Your task to perform on an android device: Clear the cart on ebay.com. Search for lenovo thinkpad on ebay.com, select the first entry, add it to the cart, then select checkout. Image 0: 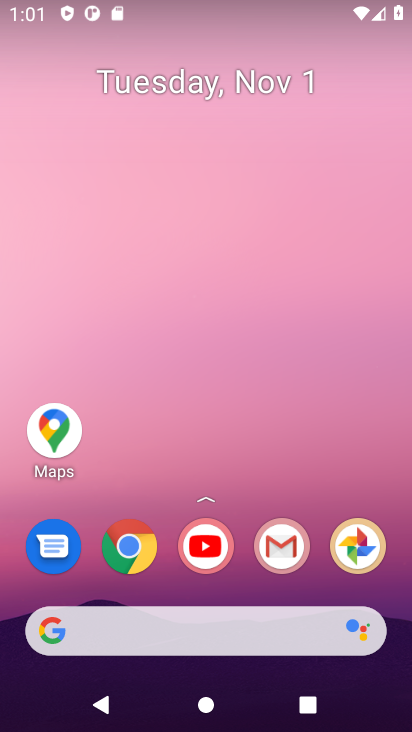
Step 0: click (56, 635)
Your task to perform on an android device: Clear the cart on ebay.com. Search for lenovo thinkpad on ebay.com, select the first entry, add it to the cart, then select checkout. Image 1: 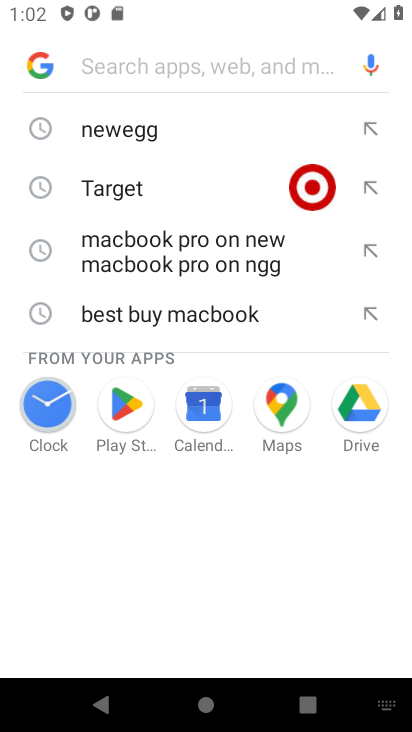
Step 1: type "ebay.com"
Your task to perform on an android device: Clear the cart on ebay.com. Search for lenovo thinkpad on ebay.com, select the first entry, add it to the cart, then select checkout. Image 2: 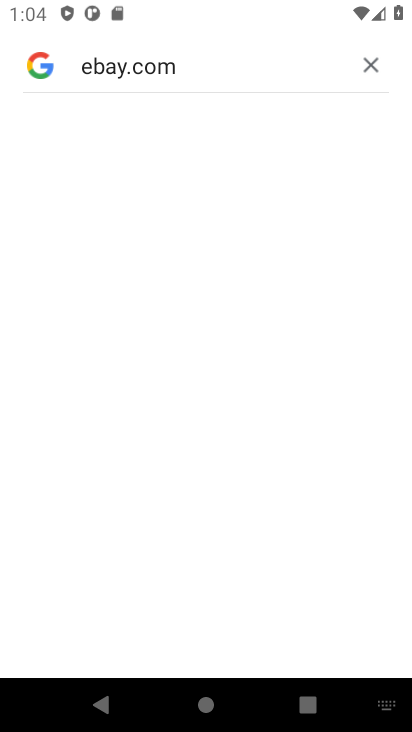
Step 2: task complete